Your task to perform on an android device: Open display settings Image 0: 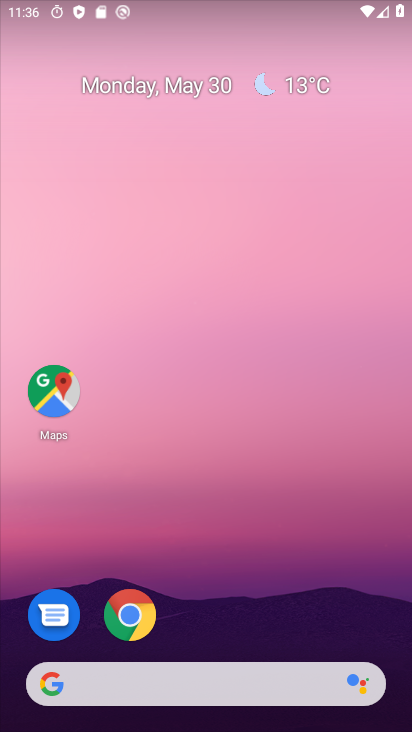
Step 0: drag from (186, 641) to (300, 97)
Your task to perform on an android device: Open display settings Image 1: 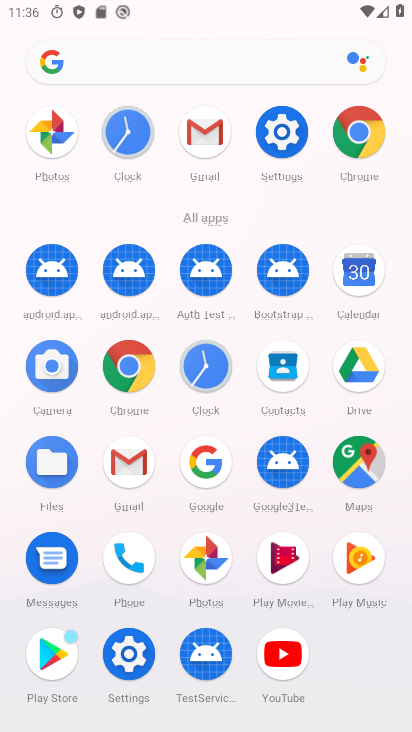
Step 1: click (131, 674)
Your task to perform on an android device: Open display settings Image 2: 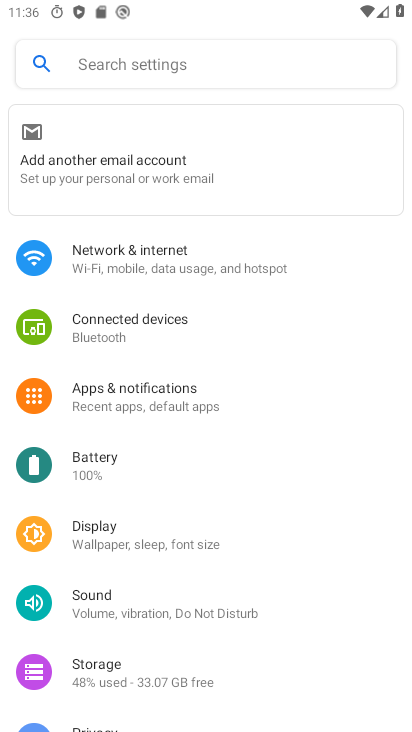
Step 2: click (195, 548)
Your task to perform on an android device: Open display settings Image 3: 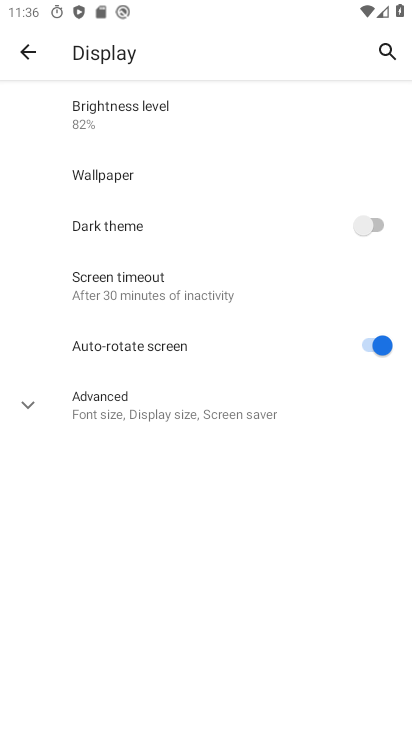
Step 3: task complete